Your task to perform on an android device: turn on airplane mode Image 0: 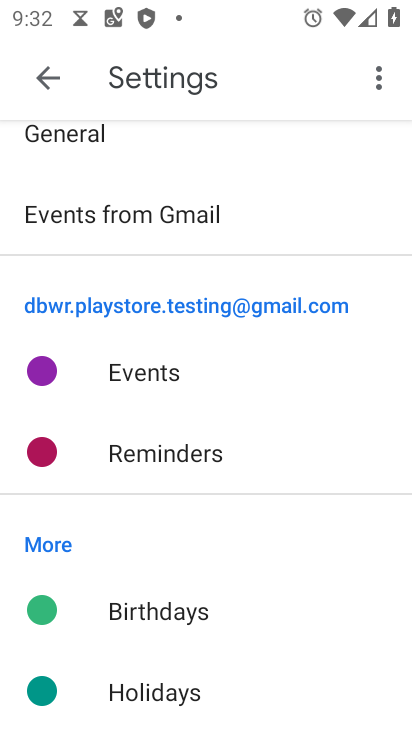
Step 0: click (48, 89)
Your task to perform on an android device: turn on airplane mode Image 1: 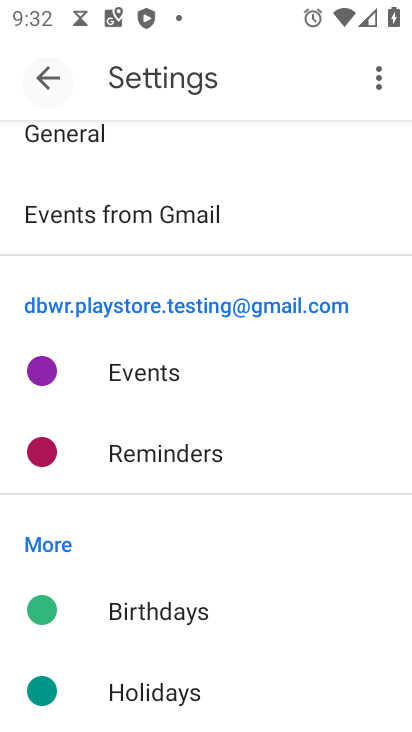
Step 1: click (48, 87)
Your task to perform on an android device: turn on airplane mode Image 2: 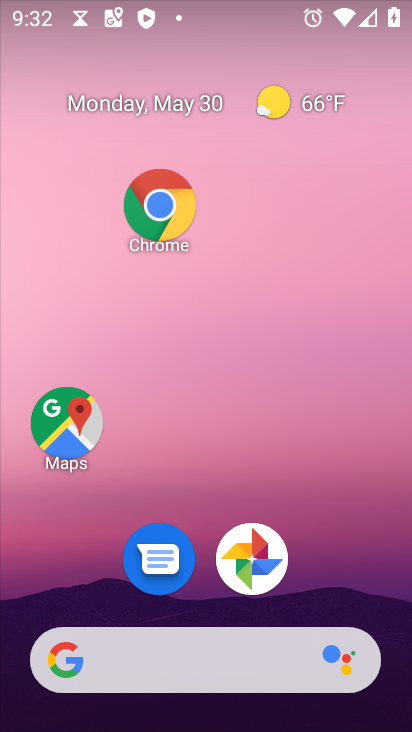
Step 2: drag from (245, 692) to (148, 51)
Your task to perform on an android device: turn on airplane mode Image 3: 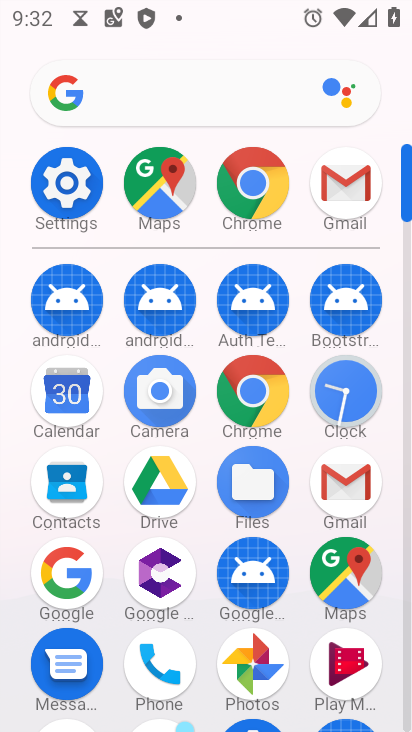
Step 3: click (75, 199)
Your task to perform on an android device: turn on airplane mode Image 4: 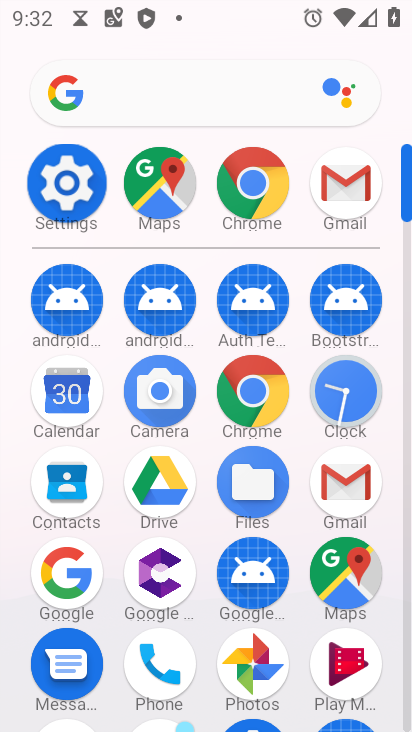
Step 4: click (76, 198)
Your task to perform on an android device: turn on airplane mode Image 5: 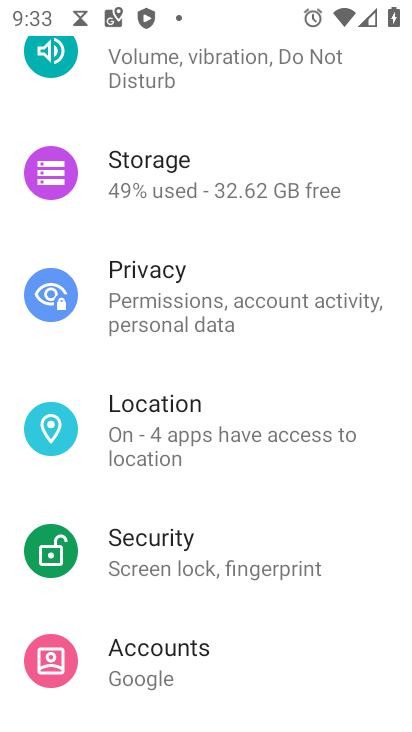
Step 5: drag from (148, 129) to (209, 560)
Your task to perform on an android device: turn on airplane mode Image 6: 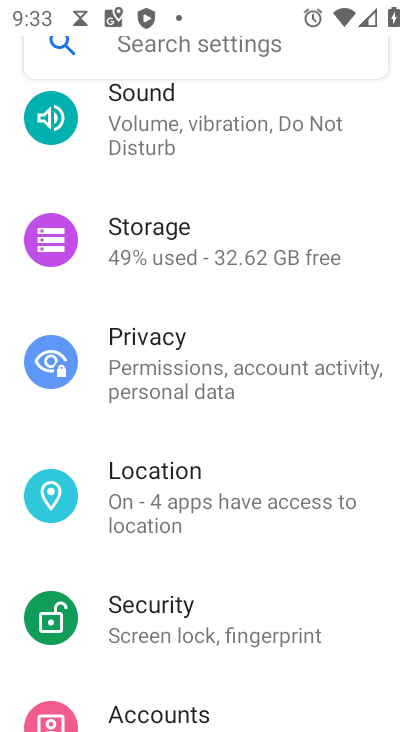
Step 6: click (236, 535)
Your task to perform on an android device: turn on airplane mode Image 7: 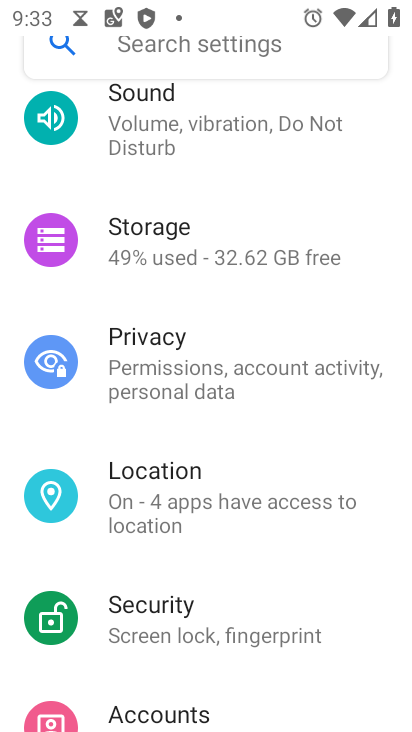
Step 7: drag from (192, 324) to (194, 649)
Your task to perform on an android device: turn on airplane mode Image 8: 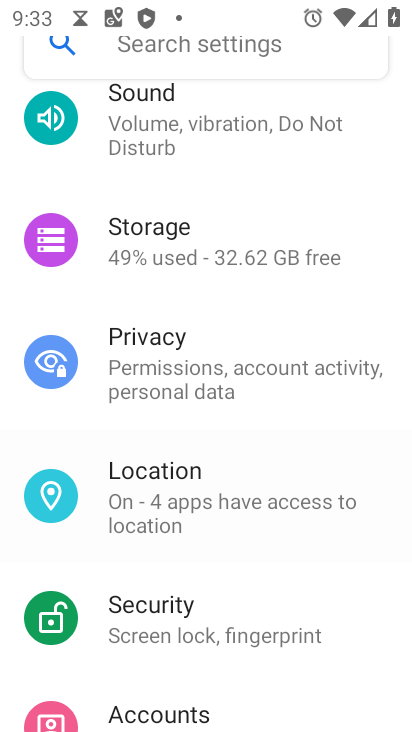
Step 8: drag from (207, 340) to (246, 603)
Your task to perform on an android device: turn on airplane mode Image 9: 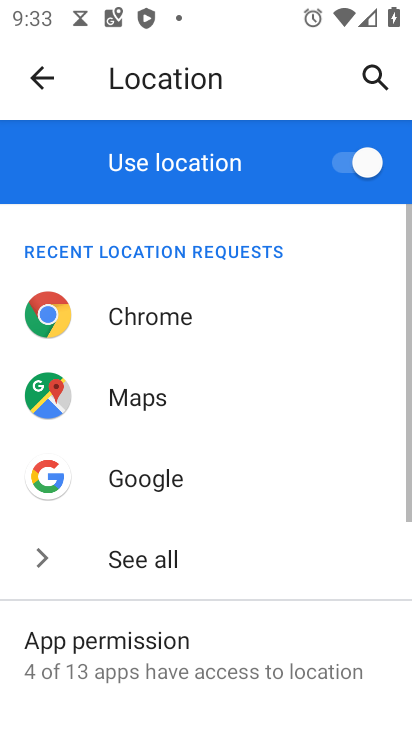
Step 9: click (32, 67)
Your task to perform on an android device: turn on airplane mode Image 10: 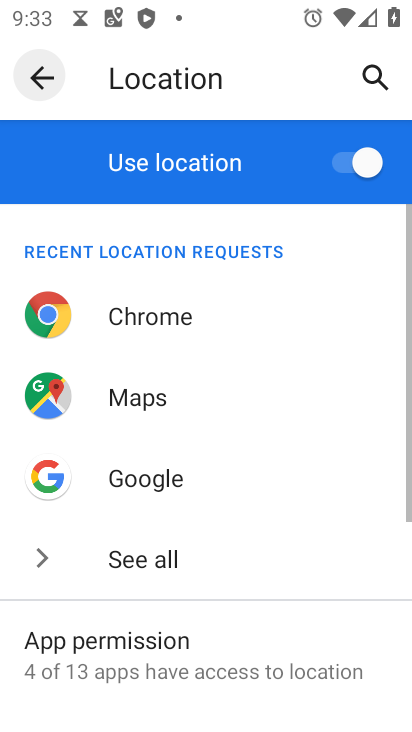
Step 10: click (34, 70)
Your task to perform on an android device: turn on airplane mode Image 11: 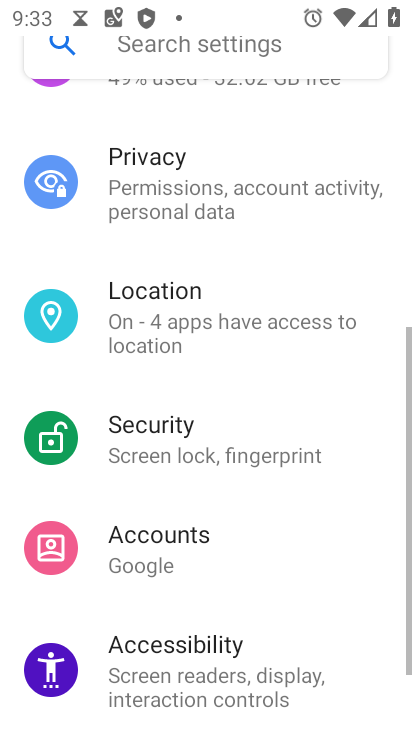
Step 11: click (38, 72)
Your task to perform on an android device: turn on airplane mode Image 12: 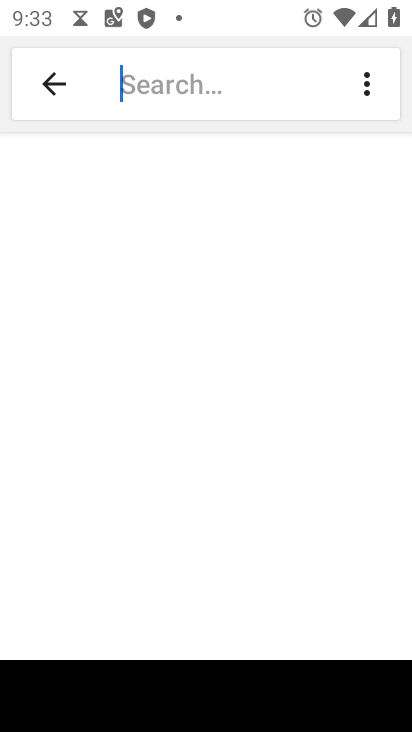
Step 12: click (52, 80)
Your task to perform on an android device: turn on airplane mode Image 13: 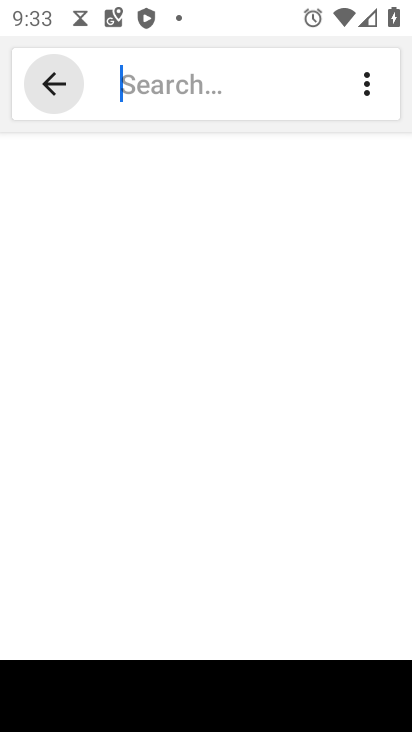
Step 13: click (52, 80)
Your task to perform on an android device: turn on airplane mode Image 14: 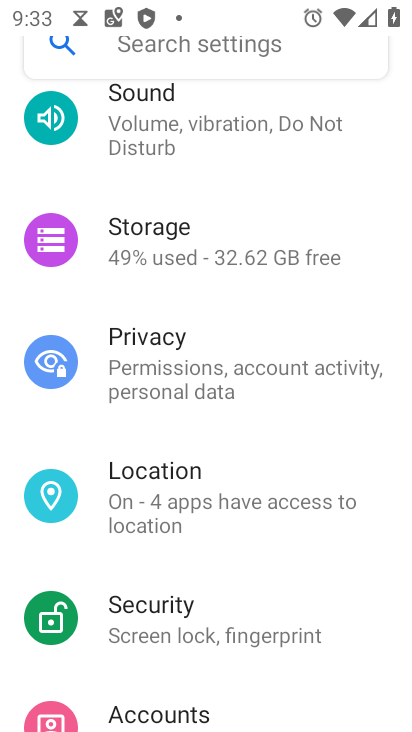
Step 14: click (163, 495)
Your task to perform on an android device: turn on airplane mode Image 15: 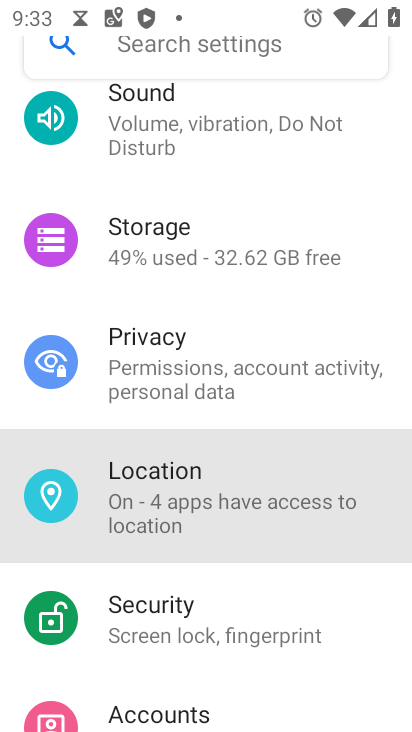
Step 15: click (163, 495)
Your task to perform on an android device: turn on airplane mode Image 16: 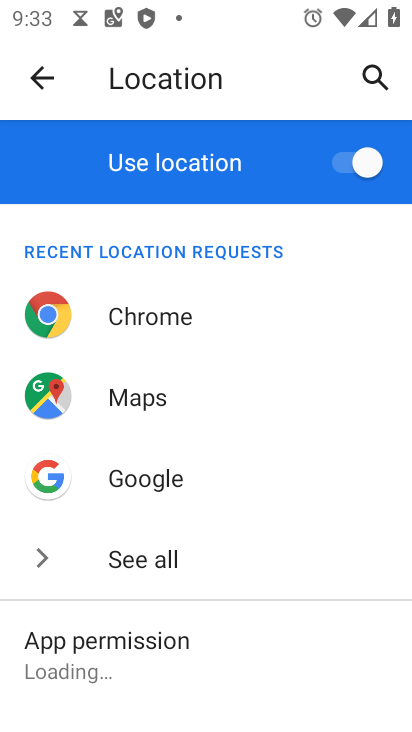
Step 16: click (33, 72)
Your task to perform on an android device: turn on airplane mode Image 17: 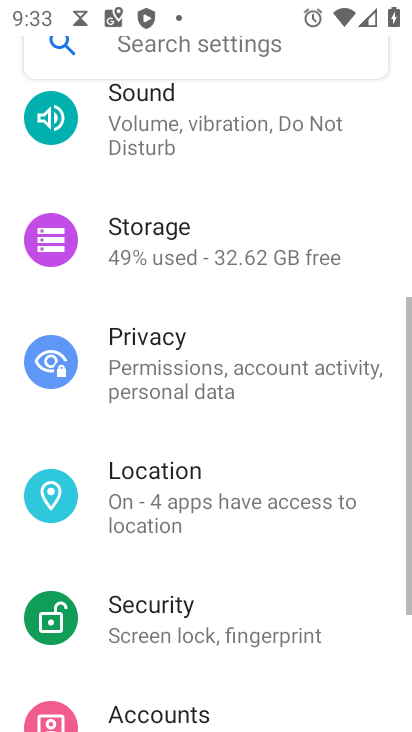
Step 17: drag from (208, 289) to (253, 614)
Your task to perform on an android device: turn on airplane mode Image 18: 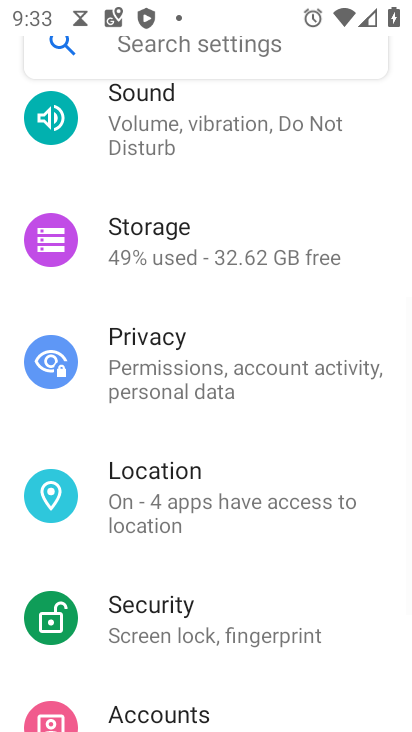
Step 18: drag from (200, 221) to (233, 518)
Your task to perform on an android device: turn on airplane mode Image 19: 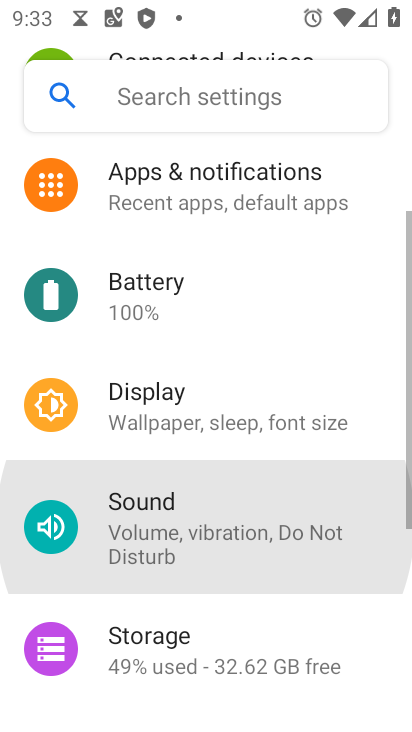
Step 19: drag from (186, 268) to (224, 661)
Your task to perform on an android device: turn on airplane mode Image 20: 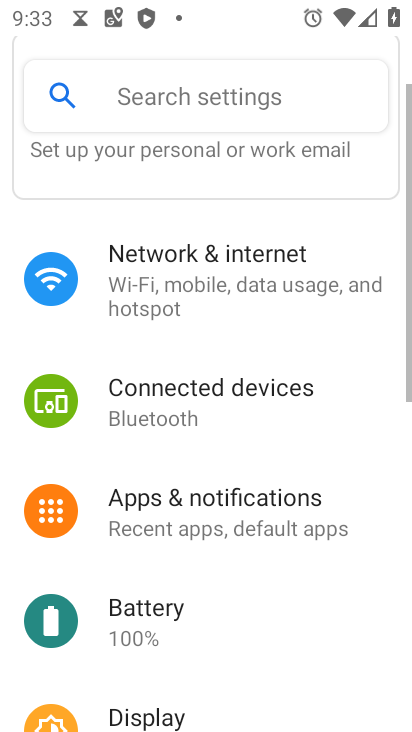
Step 20: drag from (196, 270) to (204, 653)
Your task to perform on an android device: turn on airplane mode Image 21: 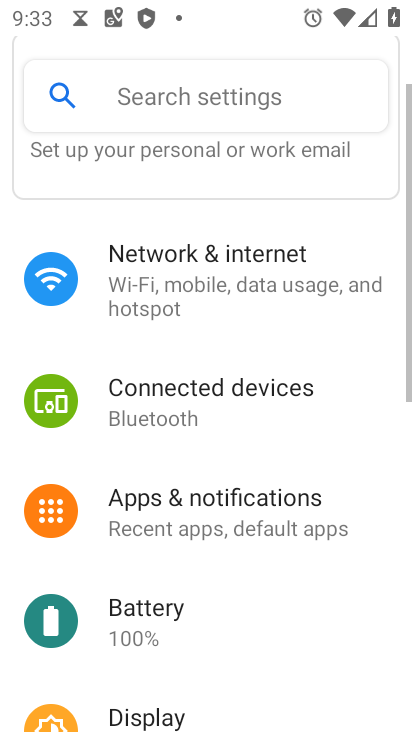
Step 21: drag from (204, 220) to (209, 707)
Your task to perform on an android device: turn on airplane mode Image 22: 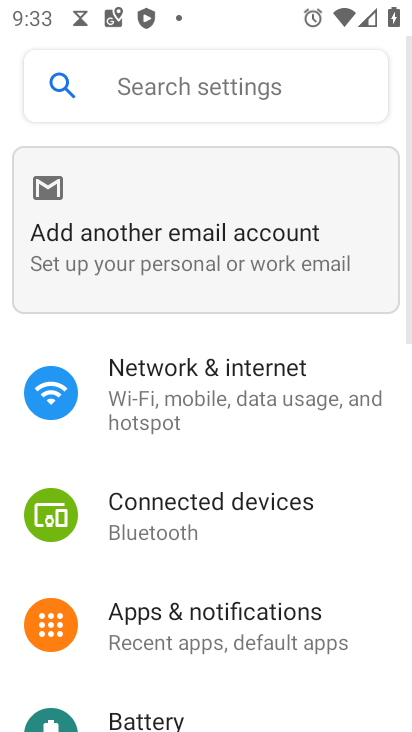
Step 22: drag from (131, 199) to (226, 656)
Your task to perform on an android device: turn on airplane mode Image 23: 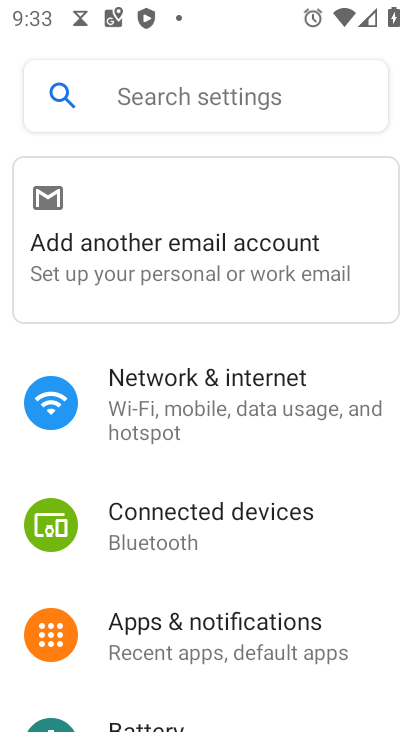
Step 23: click (225, 415)
Your task to perform on an android device: turn on airplane mode Image 24: 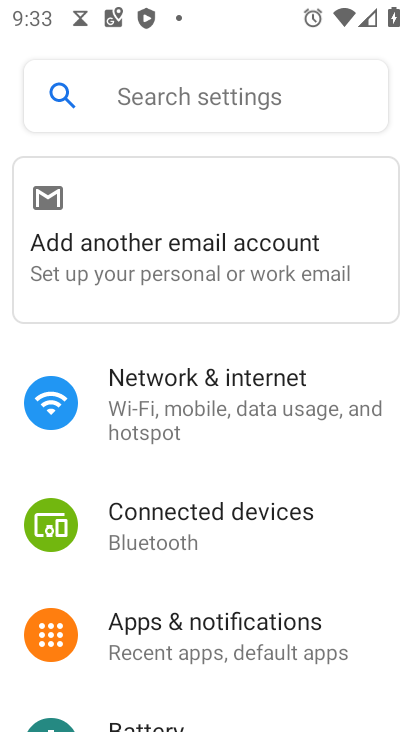
Step 24: click (225, 415)
Your task to perform on an android device: turn on airplane mode Image 25: 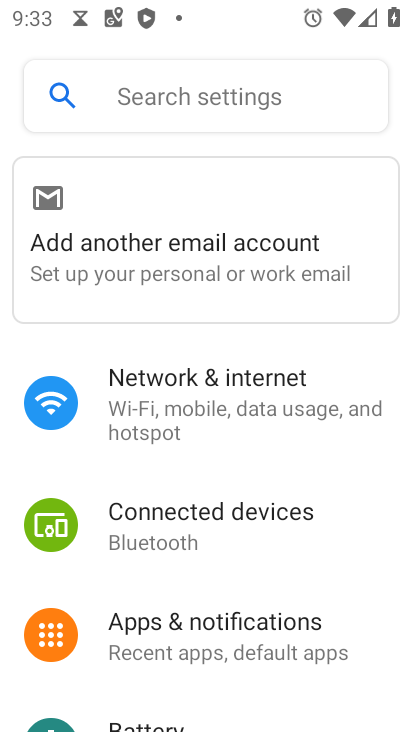
Step 25: click (225, 415)
Your task to perform on an android device: turn on airplane mode Image 26: 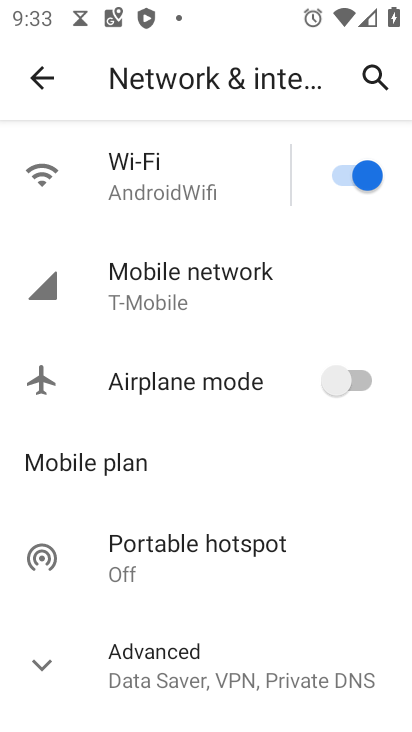
Step 26: click (352, 376)
Your task to perform on an android device: turn on airplane mode Image 27: 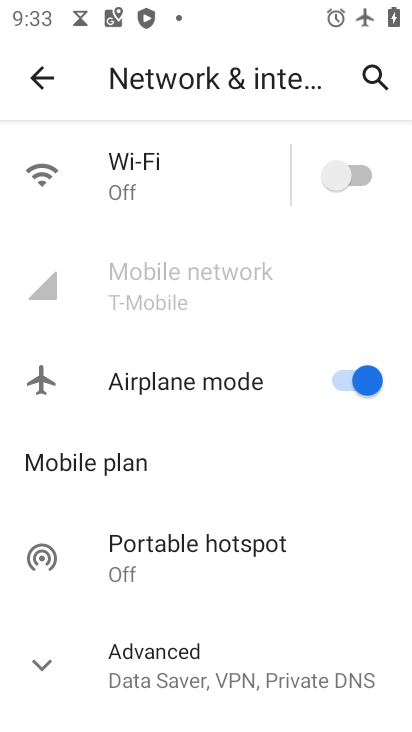
Step 27: task complete